Your task to perform on an android device: Search for vegetarian restaurants on Maps Image 0: 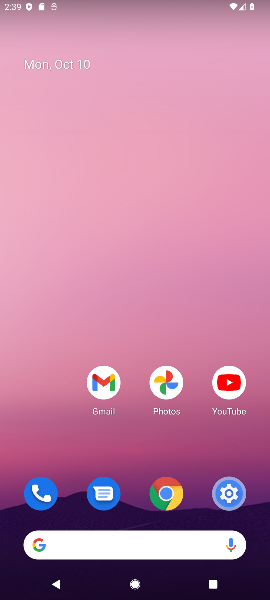
Step 0: click (162, 490)
Your task to perform on an android device: Search for vegetarian restaurants on Maps Image 1: 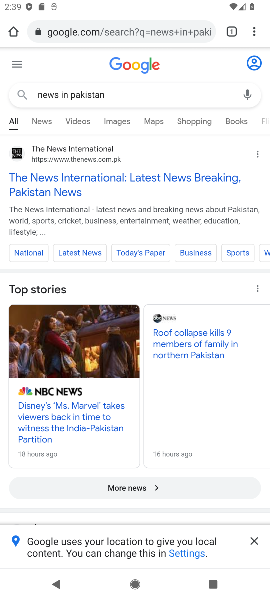
Step 1: click (155, 27)
Your task to perform on an android device: Search for vegetarian restaurants on Maps Image 2: 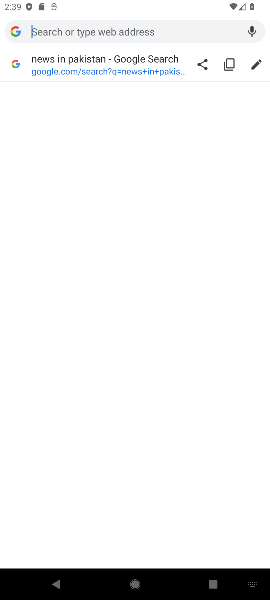
Step 2: type "vegetarian restaurants on maps"
Your task to perform on an android device: Search for vegetarian restaurants on Maps Image 3: 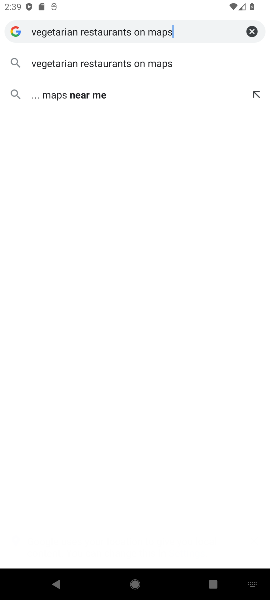
Step 3: click (83, 59)
Your task to perform on an android device: Search for vegetarian restaurants on Maps Image 4: 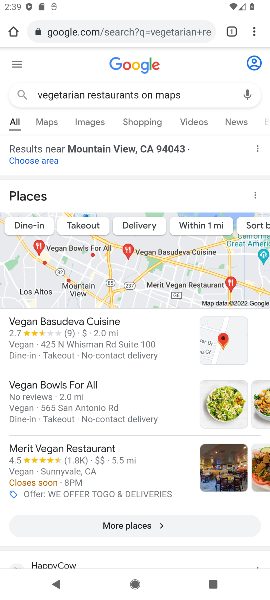
Step 4: click (131, 275)
Your task to perform on an android device: Search for vegetarian restaurants on Maps Image 5: 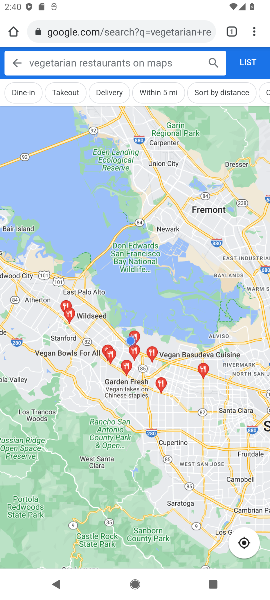
Step 5: task complete